Your task to perform on an android device: Open Chrome and go to settings Image 0: 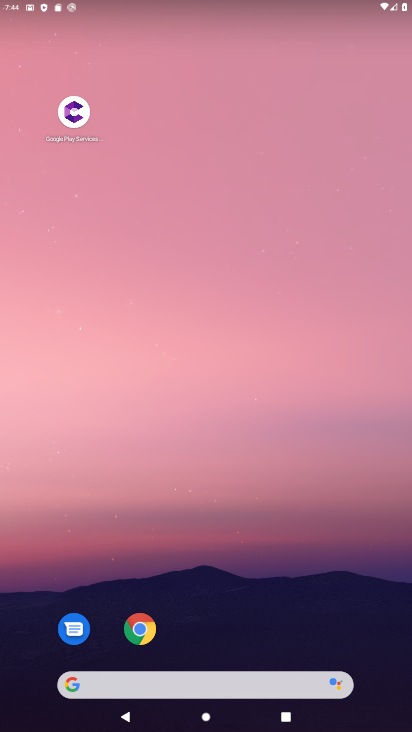
Step 0: click (157, 623)
Your task to perform on an android device: Open Chrome and go to settings Image 1: 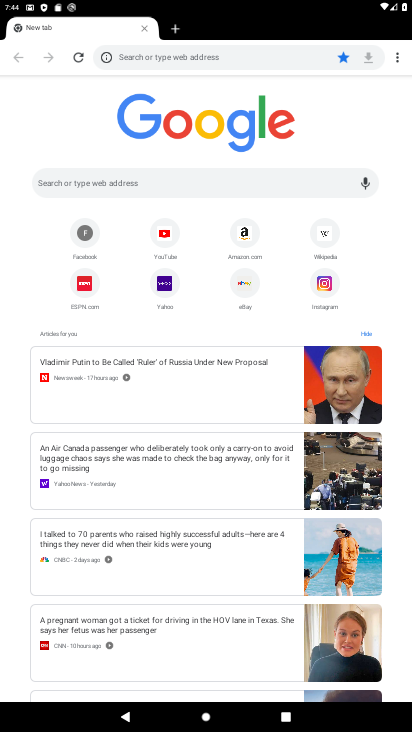
Step 1: task complete